Your task to perform on an android device: Go to accessibility settings Image 0: 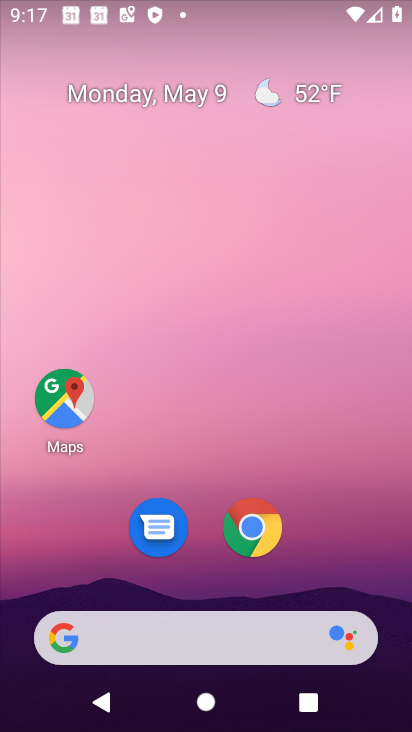
Step 0: drag from (217, 563) to (231, 50)
Your task to perform on an android device: Go to accessibility settings Image 1: 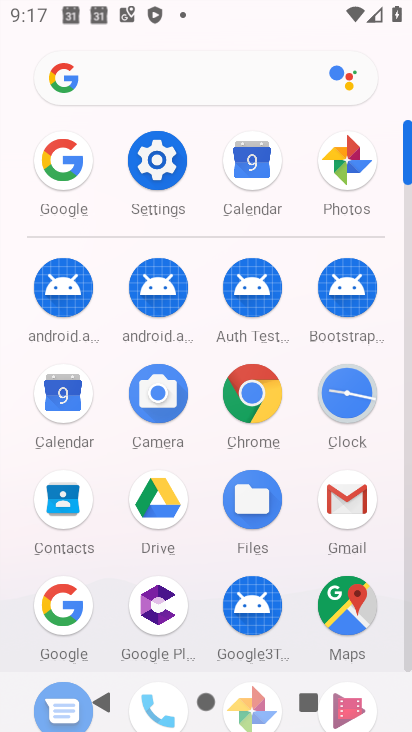
Step 1: click (155, 162)
Your task to perform on an android device: Go to accessibility settings Image 2: 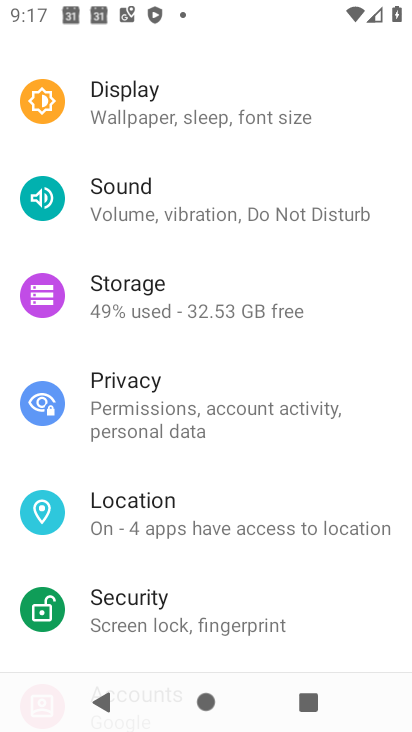
Step 2: drag from (242, 534) to (239, 61)
Your task to perform on an android device: Go to accessibility settings Image 3: 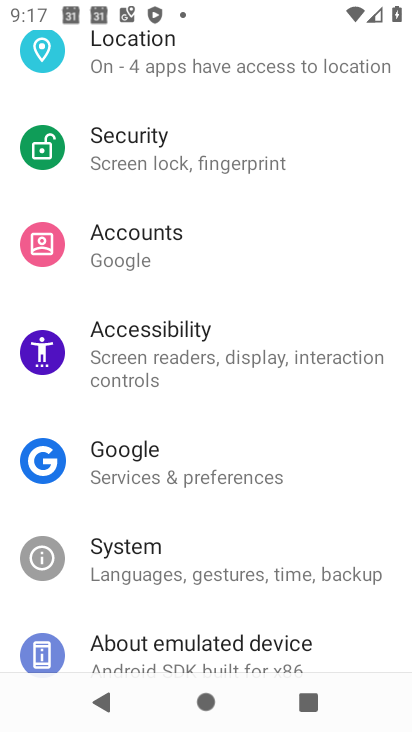
Step 3: click (173, 343)
Your task to perform on an android device: Go to accessibility settings Image 4: 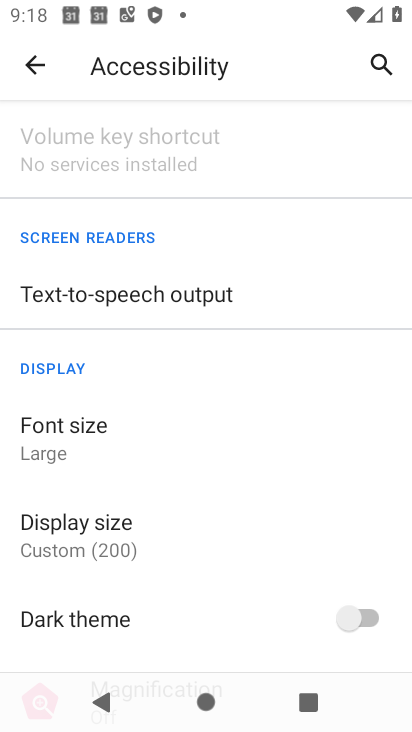
Step 4: task complete